Your task to perform on an android device: Go to battery settings Image 0: 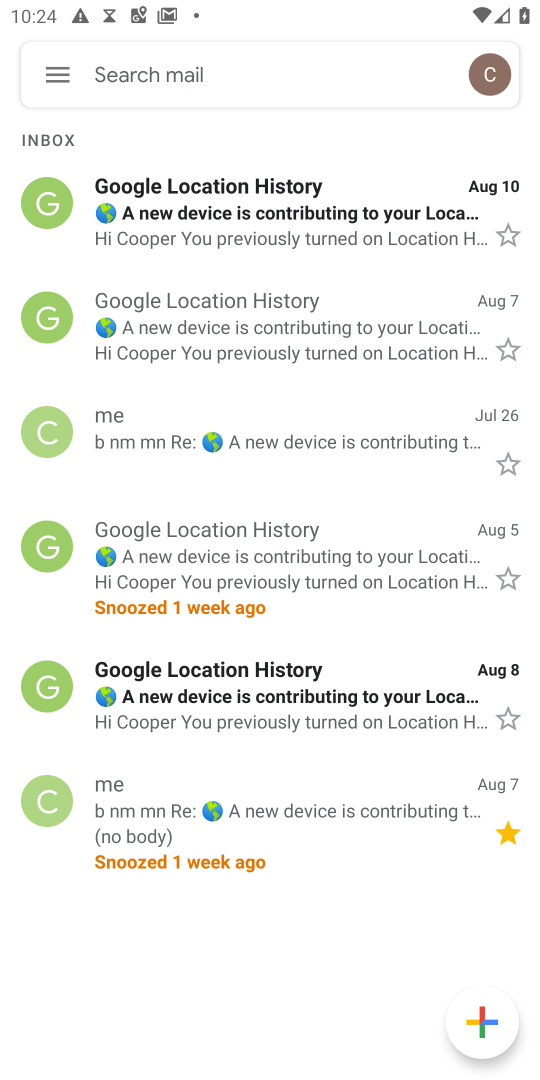
Step 0: press home button
Your task to perform on an android device: Go to battery settings Image 1: 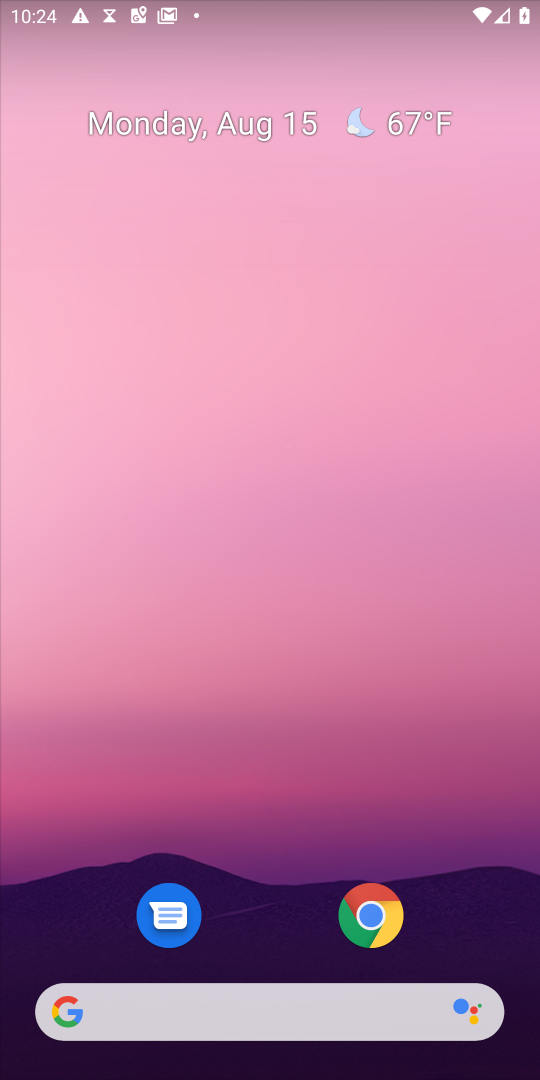
Step 1: drag from (276, 891) to (253, 253)
Your task to perform on an android device: Go to battery settings Image 2: 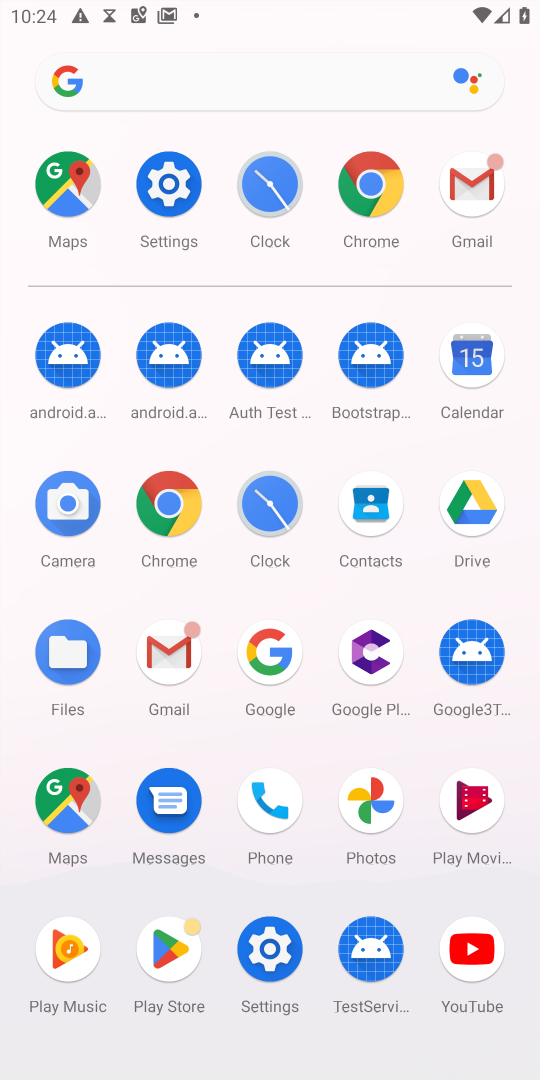
Step 2: click (171, 188)
Your task to perform on an android device: Go to battery settings Image 3: 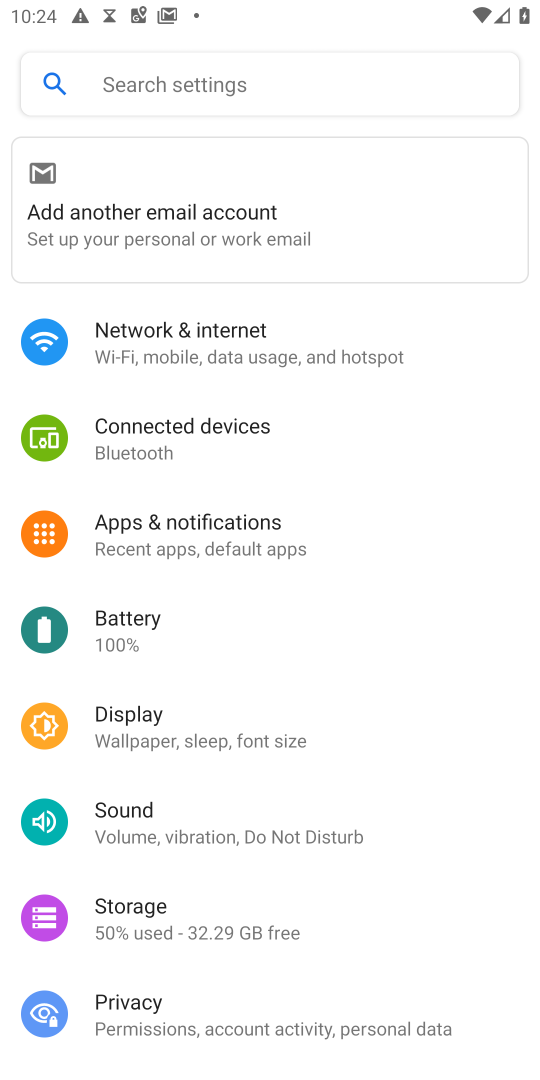
Step 3: click (111, 622)
Your task to perform on an android device: Go to battery settings Image 4: 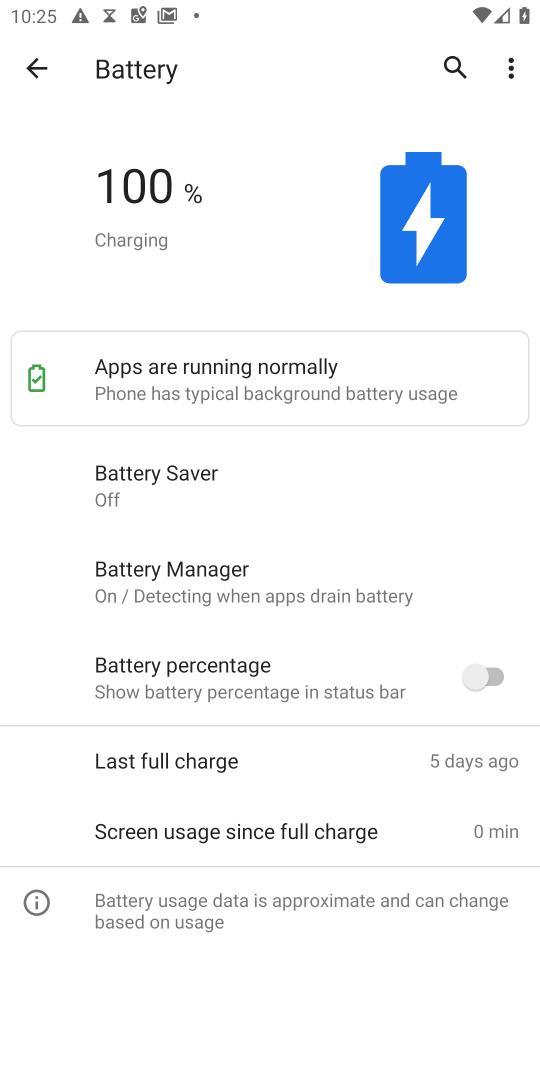
Step 4: task complete